Your task to perform on an android device: What is the news today? Image 0: 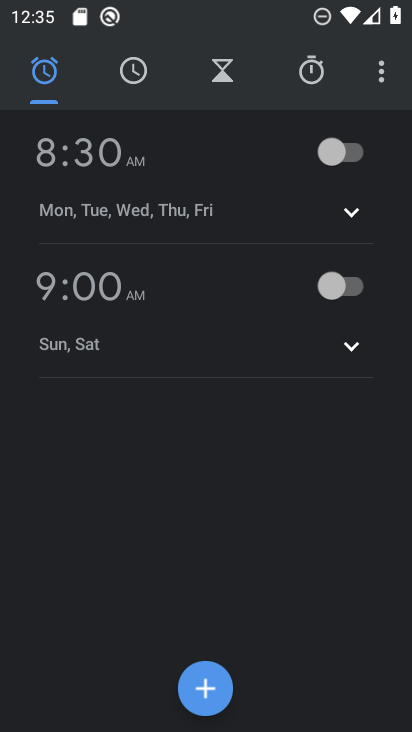
Step 0: press back button
Your task to perform on an android device: What is the news today? Image 1: 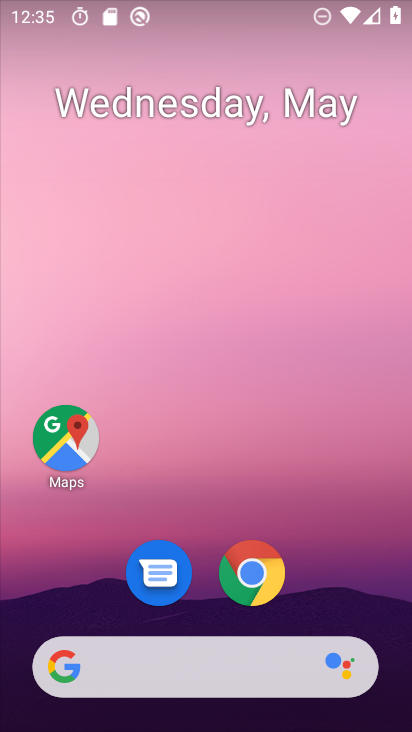
Step 1: drag from (313, 569) to (211, 69)
Your task to perform on an android device: What is the news today? Image 2: 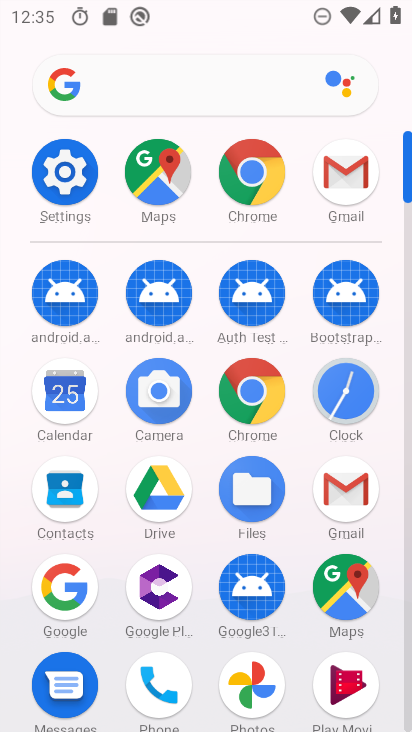
Step 2: drag from (21, 567) to (18, 248)
Your task to perform on an android device: What is the news today? Image 3: 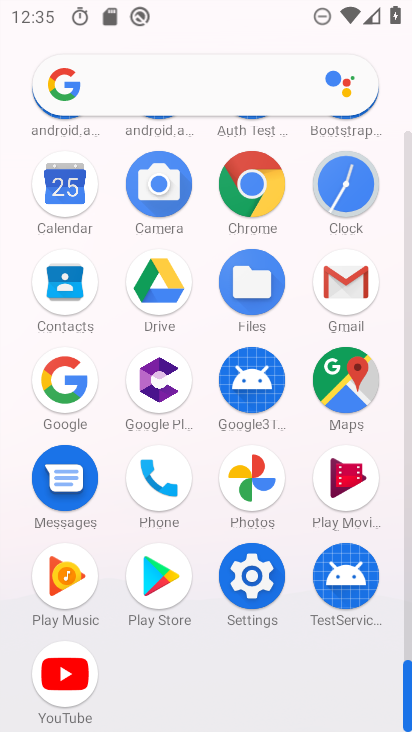
Step 3: click (252, 176)
Your task to perform on an android device: What is the news today? Image 4: 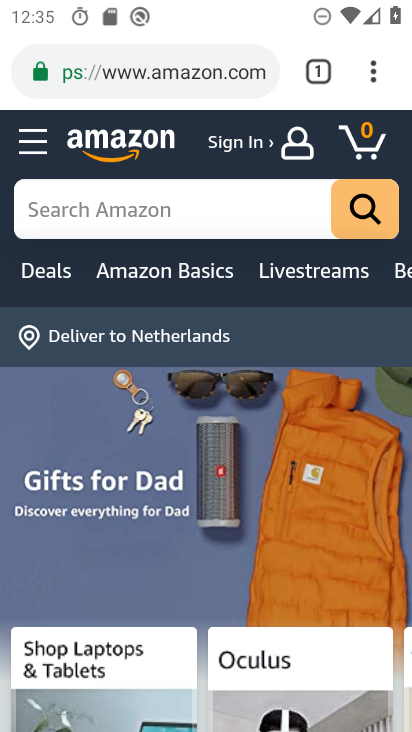
Step 4: click (143, 68)
Your task to perform on an android device: What is the news today? Image 5: 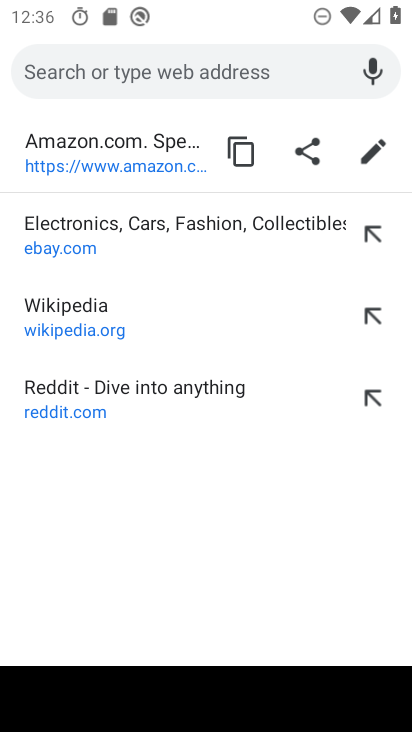
Step 5: type "What is the news today?"
Your task to perform on an android device: What is the news today? Image 6: 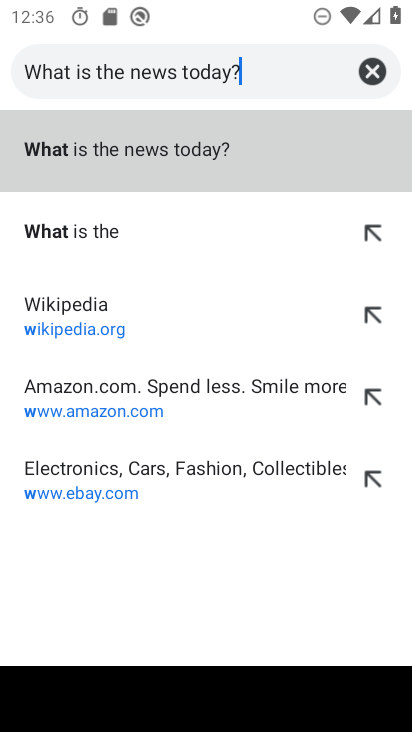
Step 6: type ""
Your task to perform on an android device: What is the news today? Image 7: 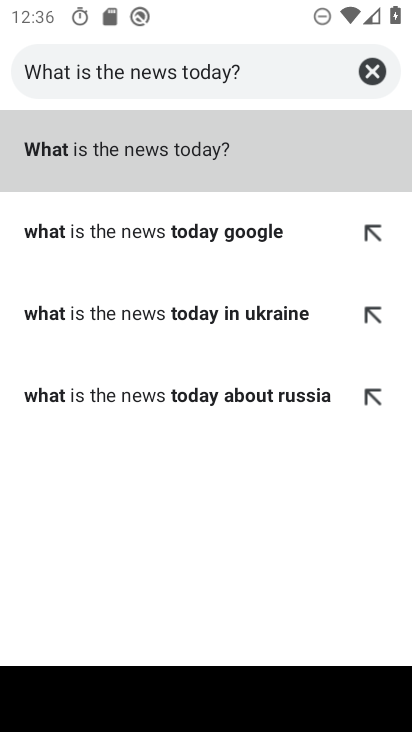
Step 7: click (274, 160)
Your task to perform on an android device: What is the news today? Image 8: 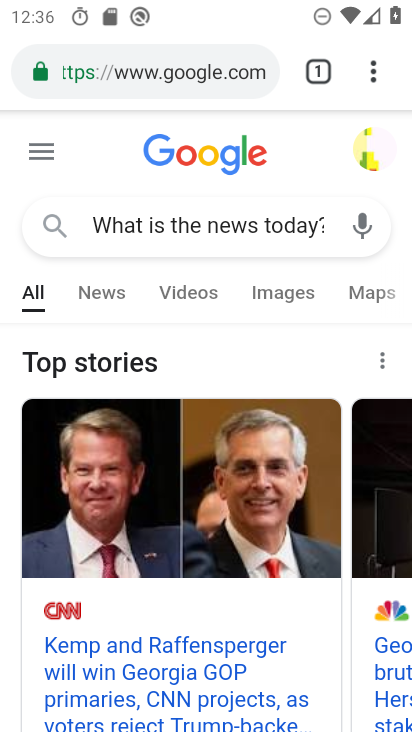
Step 8: task complete